Your task to perform on an android device: Go to eBay Image 0: 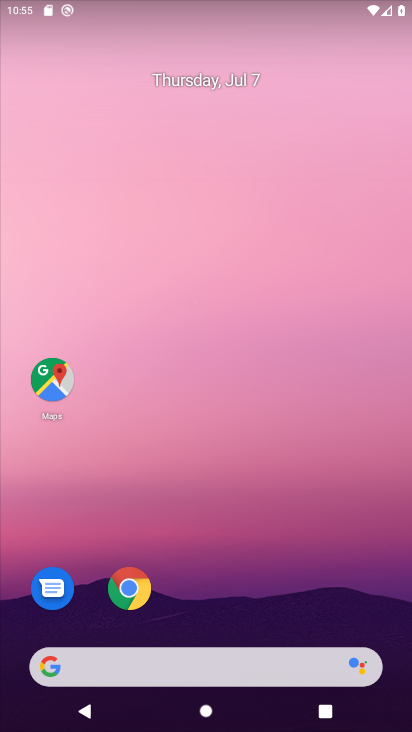
Step 0: click (122, 594)
Your task to perform on an android device: Go to eBay Image 1: 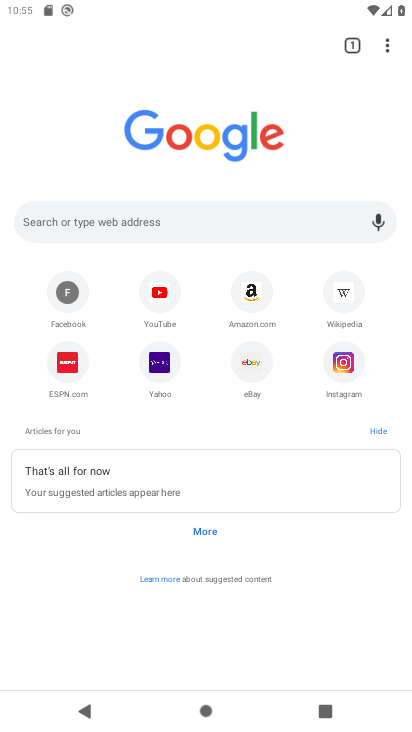
Step 1: click (254, 364)
Your task to perform on an android device: Go to eBay Image 2: 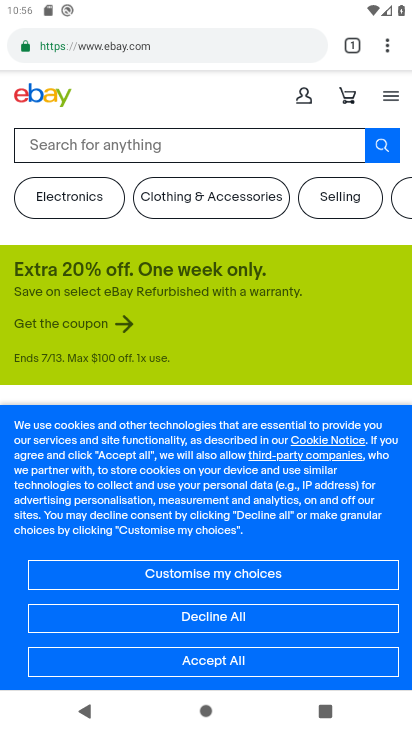
Step 2: task complete